Your task to perform on an android device: toggle priority inbox in the gmail app Image 0: 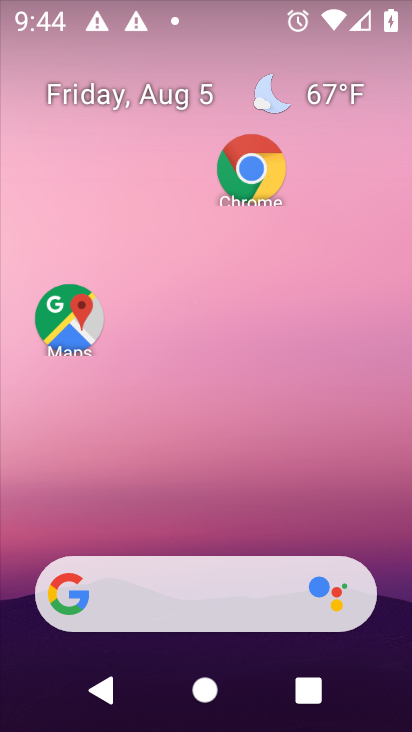
Step 0: drag from (218, 515) to (194, 197)
Your task to perform on an android device: toggle priority inbox in the gmail app Image 1: 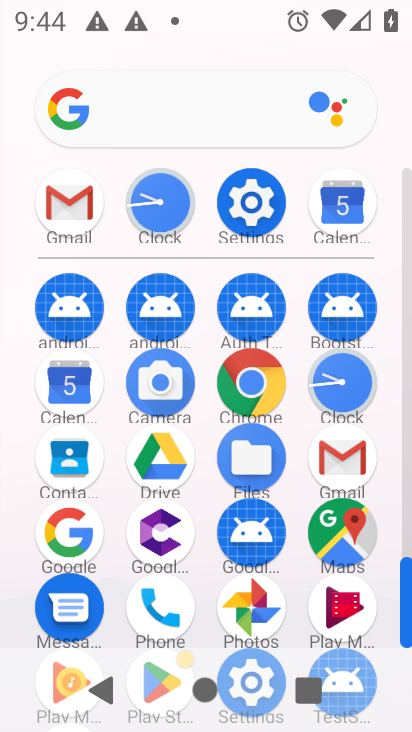
Step 1: click (84, 218)
Your task to perform on an android device: toggle priority inbox in the gmail app Image 2: 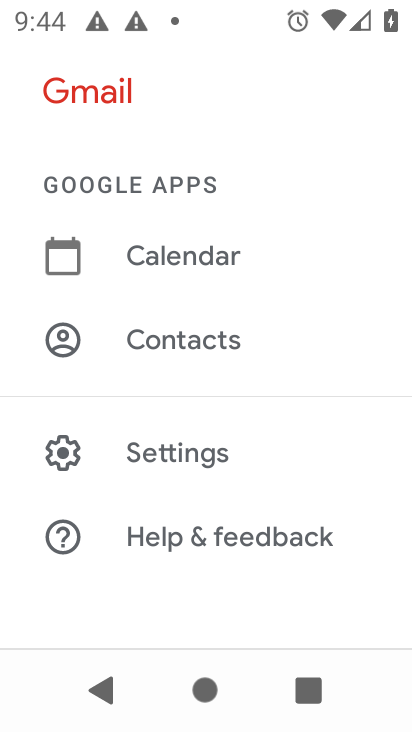
Step 2: drag from (263, 528) to (232, 320)
Your task to perform on an android device: toggle priority inbox in the gmail app Image 3: 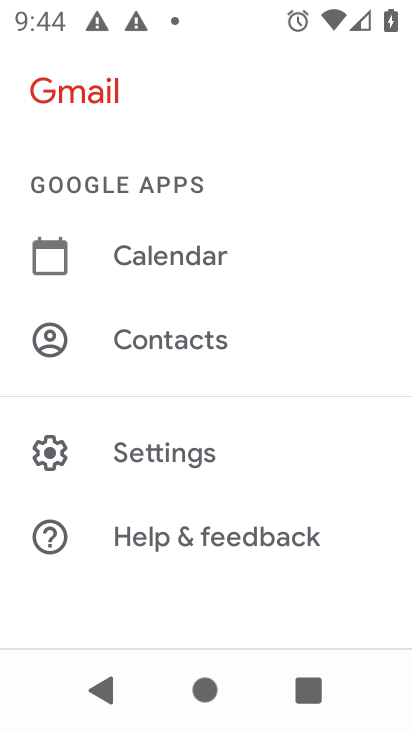
Step 3: click (188, 445)
Your task to perform on an android device: toggle priority inbox in the gmail app Image 4: 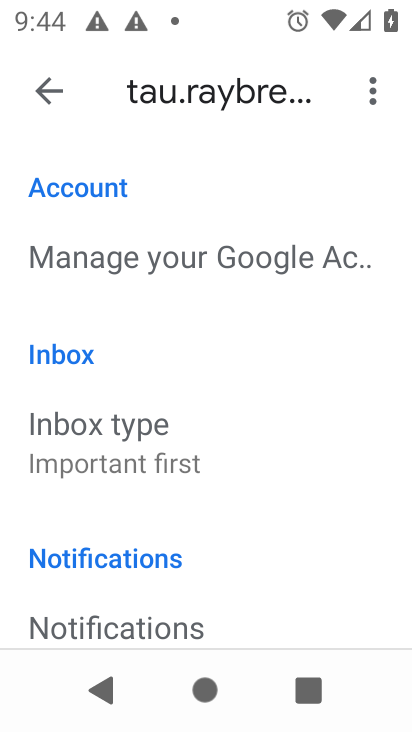
Step 4: click (151, 472)
Your task to perform on an android device: toggle priority inbox in the gmail app Image 5: 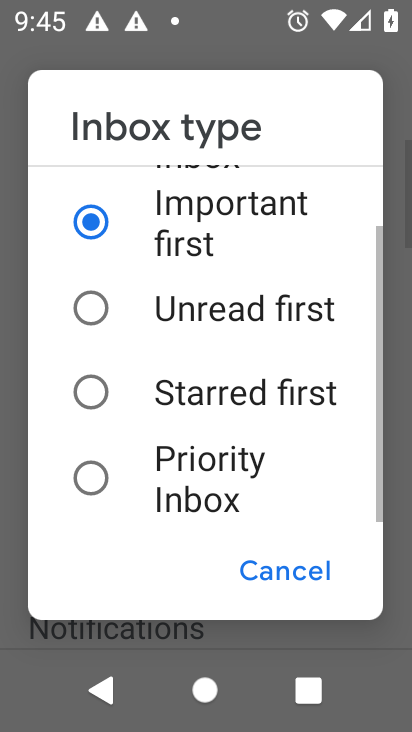
Step 5: click (162, 445)
Your task to perform on an android device: toggle priority inbox in the gmail app Image 6: 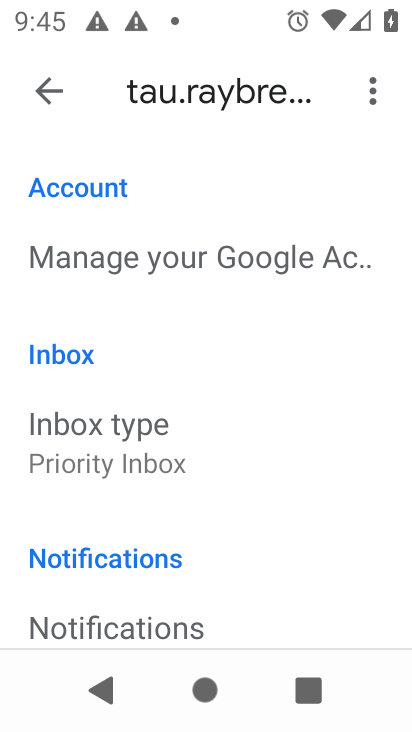
Step 6: task complete